Your task to perform on an android device: open a new tab in the chrome app Image 0: 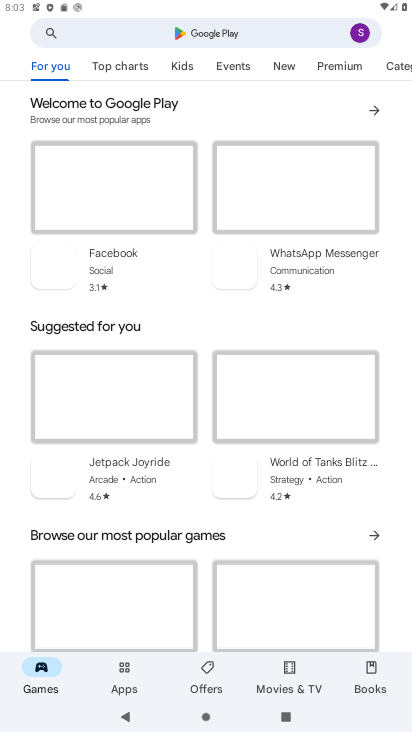
Step 0: press home button
Your task to perform on an android device: open a new tab in the chrome app Image 1: 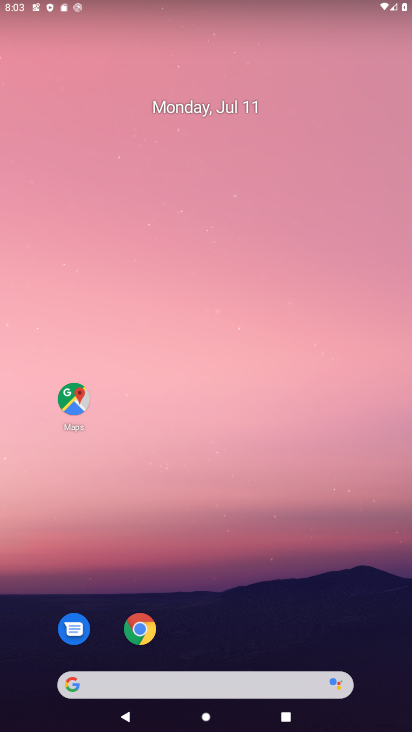
Step 1: click (141, 625)
Your task to perform on an android device: open a new tab in the chrome app Image 2: 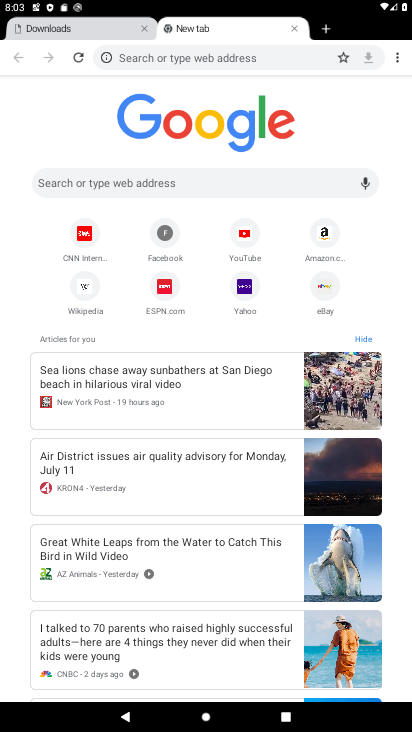
Step 2: click (323, 31)
Your task to perform on an android device: open a new tab in the chrome app Image 3: 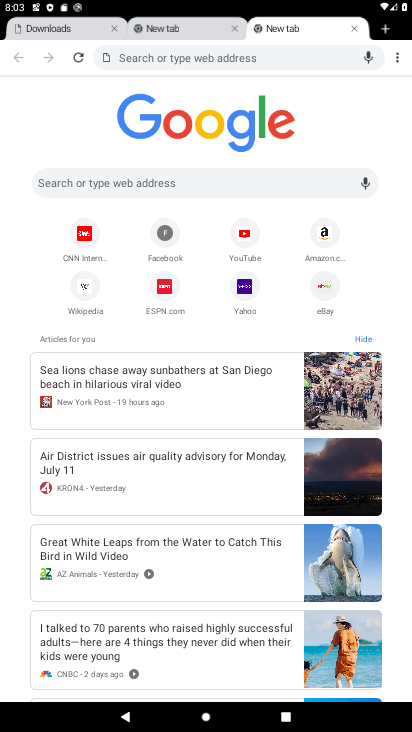
Step 3: task complete